Your task to perform on an android device: Open CNN.com Image 0: 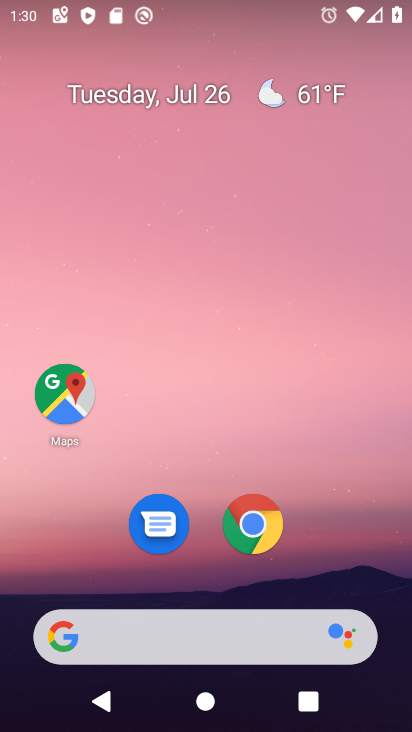
Step 0: press home button
Your task to perform on an android device: Open CNN.com Image 1: 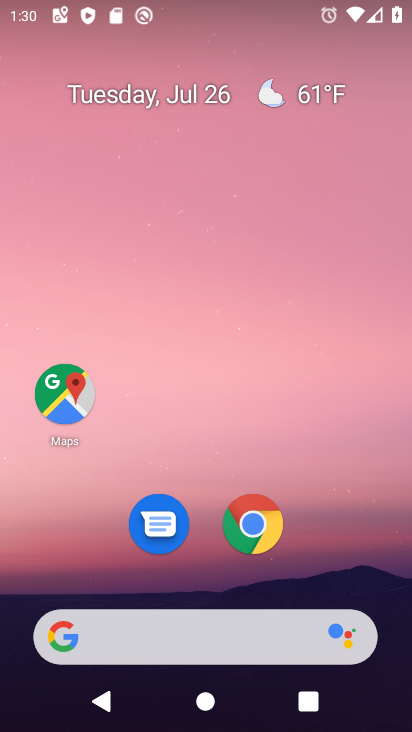
Step 1: click (250, 528)
Your task to perform on an android device: Open CNN.com Image 2: 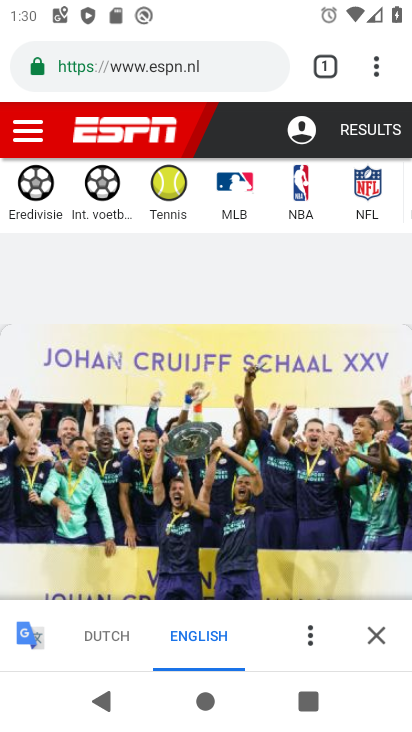
Step 2: drag from (379, 68) to (212, 132)
Your task to perform on an android device: Open CNN.com Image 3: 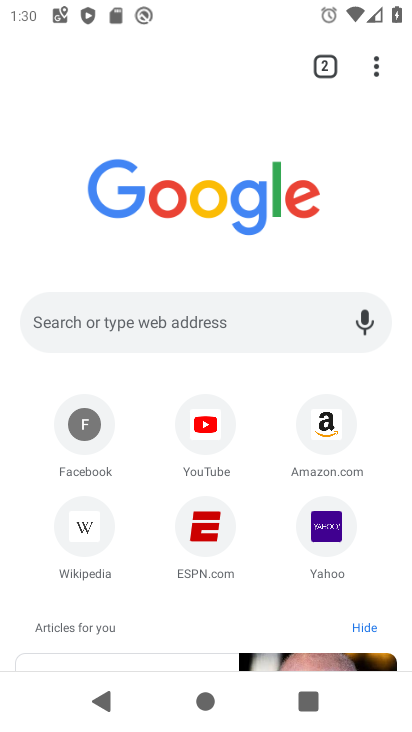
Step 3: click (124, 316)
Your task to perform on an android device: Open CNN.com Image 4: 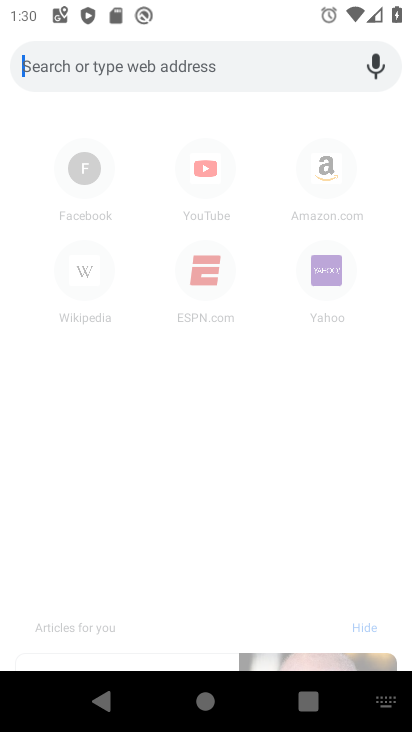
Step 4: type "CNN.com"
Your task to perform on an android device: Open CNN.com Image 5: 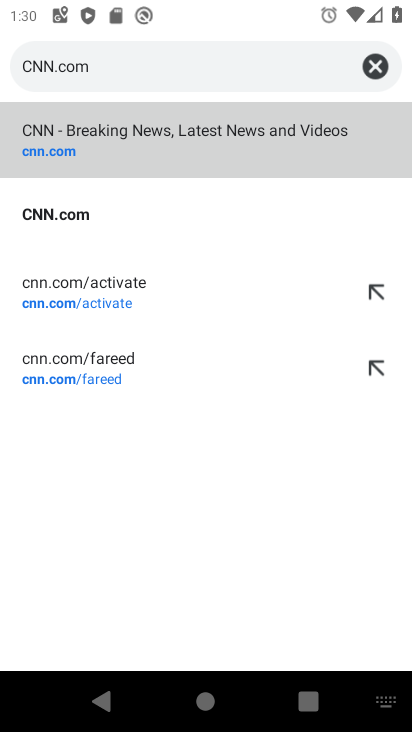
Step 5: click (129, 148)
Your task to perform on an android device: Open CNN.com Image 6: 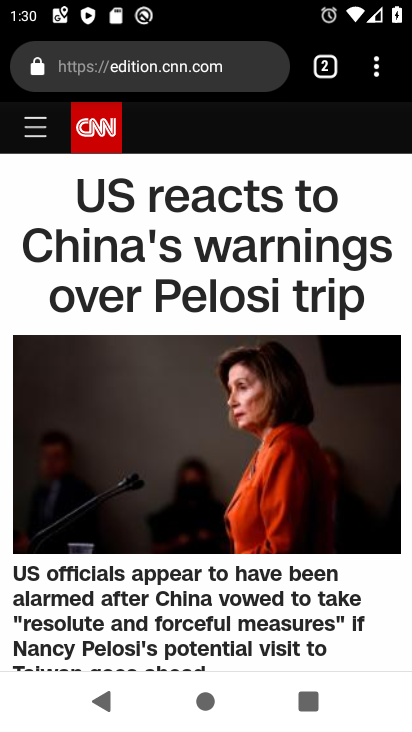
Step 6: drag from (193, 552) to (305, 271)
Your task to perform on an android device: Open CNN.com Image 7: 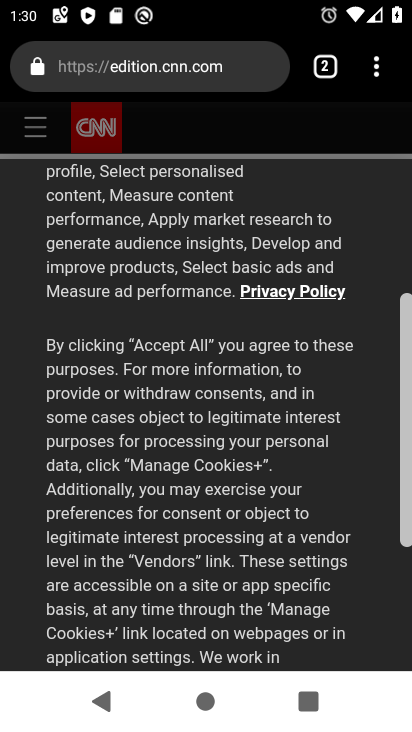
Step 7: drag from (191, 557) to (304, 222)
Your task to perform on an android device: Open CNN.com Image 8: 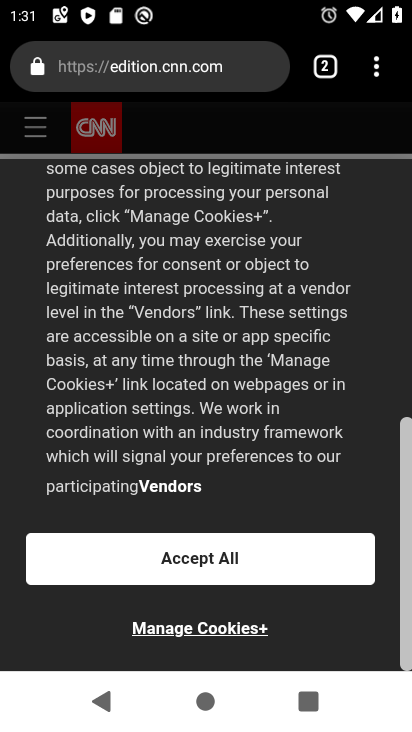
Step 8: click (197, 557)
Your task to perform on an android device: Open CNN.com Image 9: 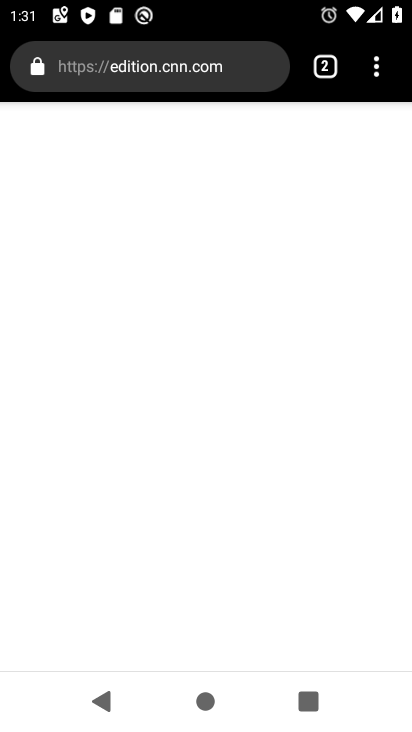
Step 9: task complete